Your task to perform on an android device: Search for Mexican restaurants on Maps Image 0: 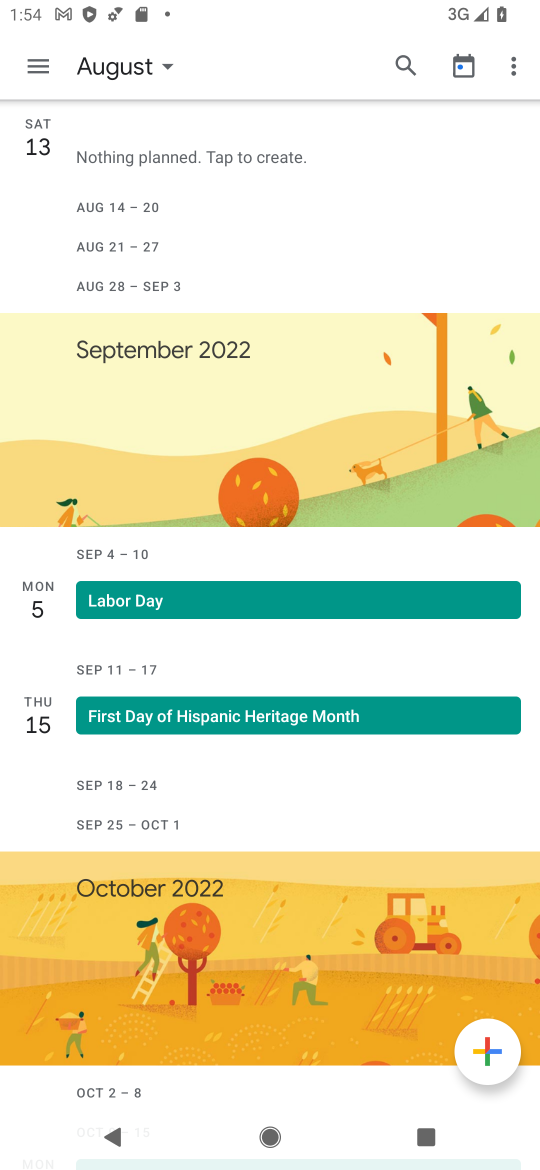
Step 0: press home button
Your task to perform on an android device: Search for Mexican restaurants on Maps Image 1: 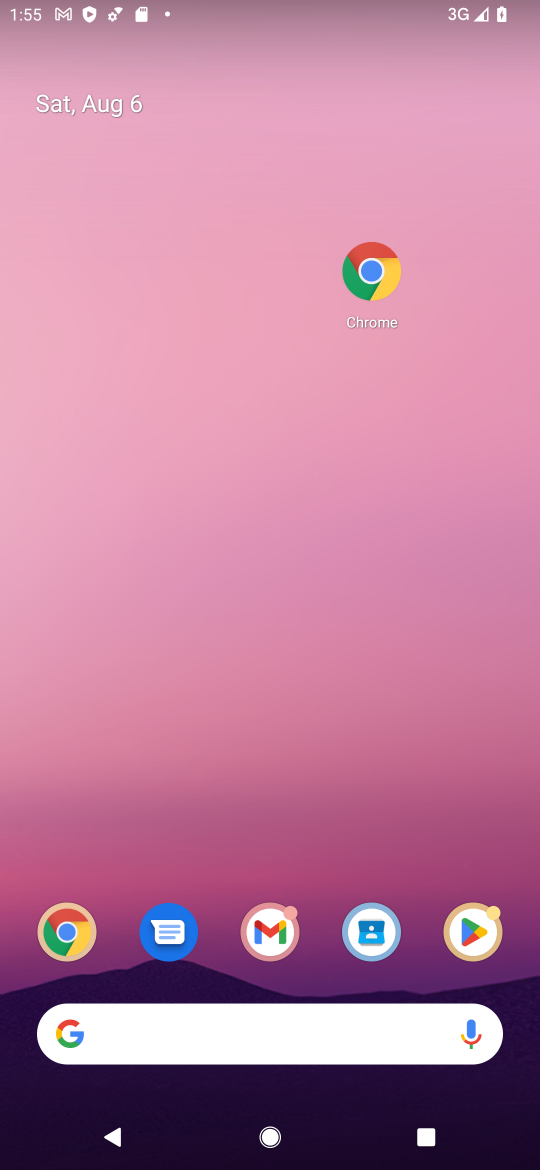
Step 1: drag from (325, 967) to (324, 84)
Your task to perform on an android device: Search for Mexican restaurants on Maps Image 2: 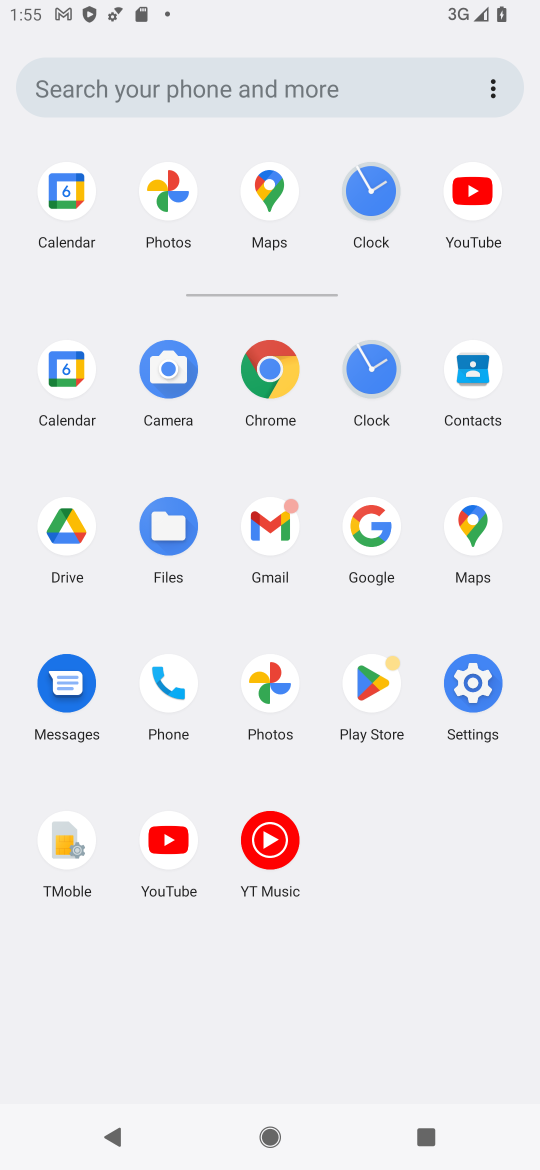
Step 2: click (470, 520)
Your task to perform on an android device: Search for Mexican restaurants on Maps Image 3: 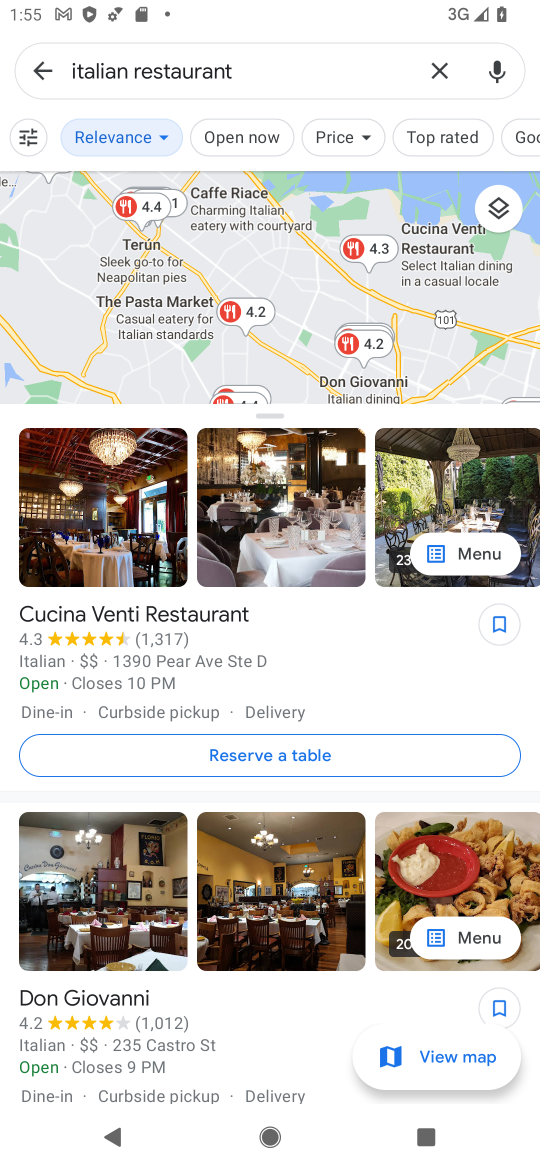
Step 3: click (433, 68)
Your task to perform on an android device: Search for Mexican restaurants on Maps Image 4: 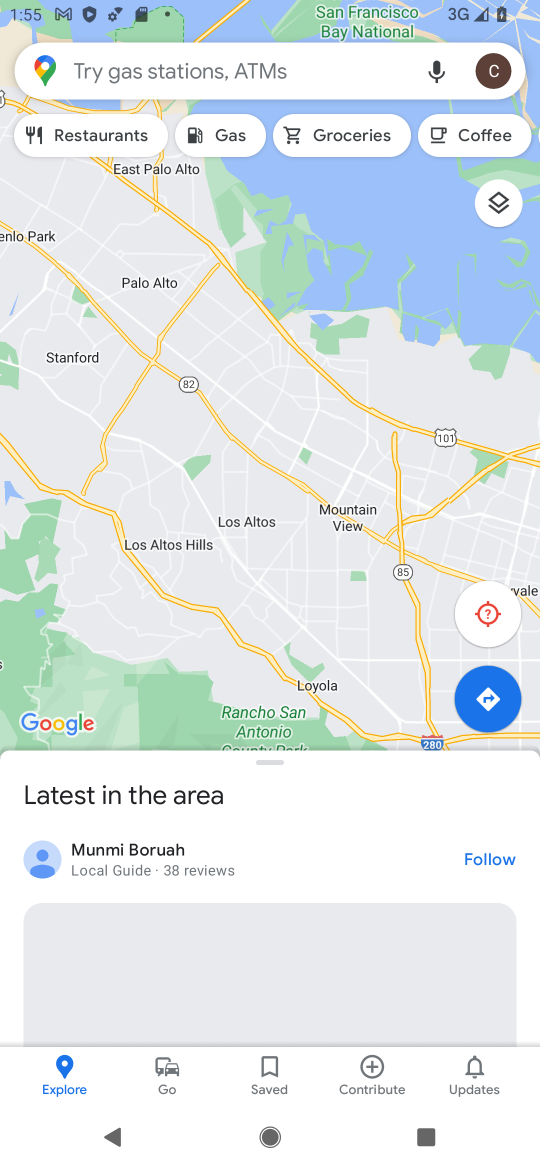
Step 4: click (319, 77)
Your task to perform on an android device: Search for Mexican restaurants on Maps Image 5: 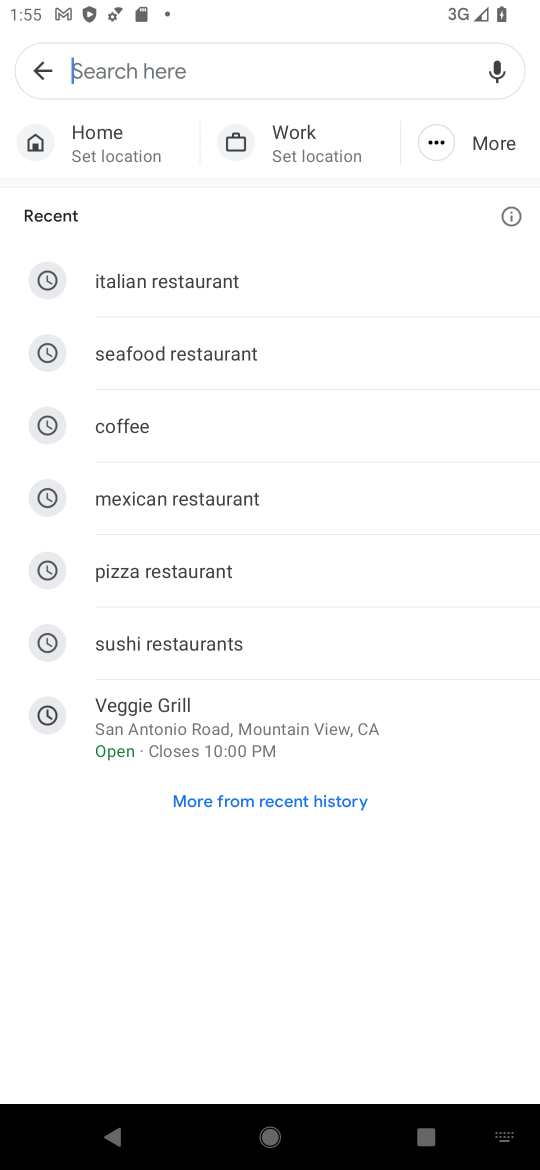
Step 5: type " Mexican restaurants"
Your task to perform on an android device: Search for Mexican restaurants on Maps Image 6: 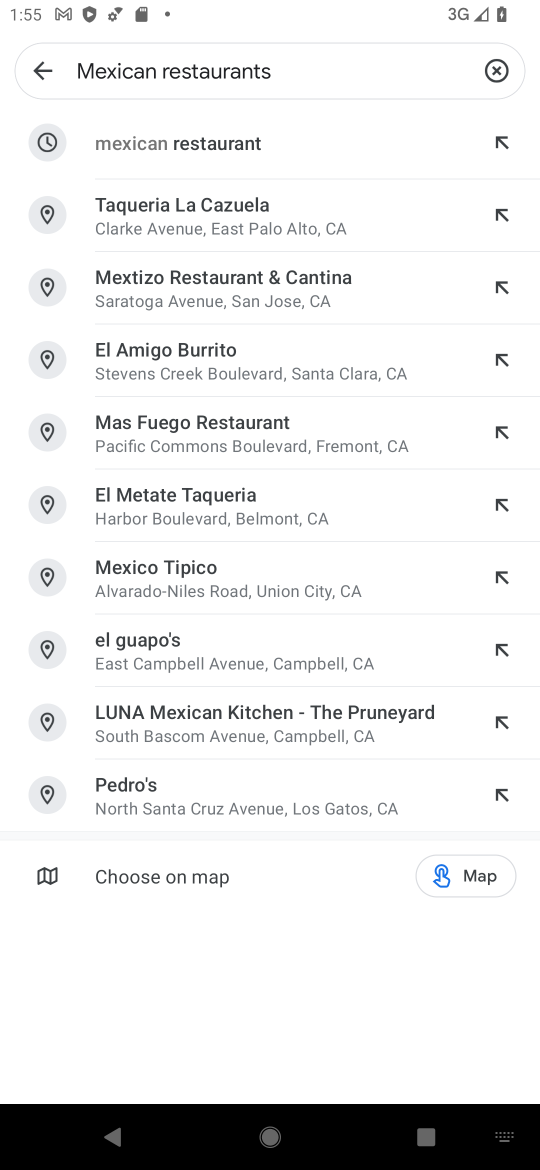
Step 6: click (210, 136)
Your task to perform on an android device: Search for Mexican restaurants on Maps Image 7: 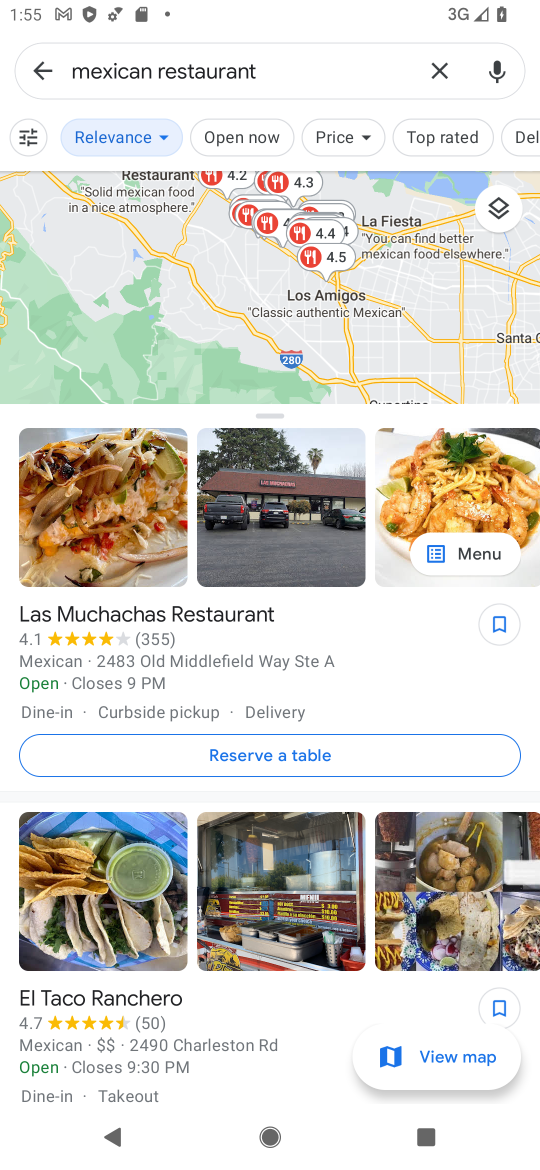
Step 7: task complete